Your task to perform on an android device: turn off location history Image 0: 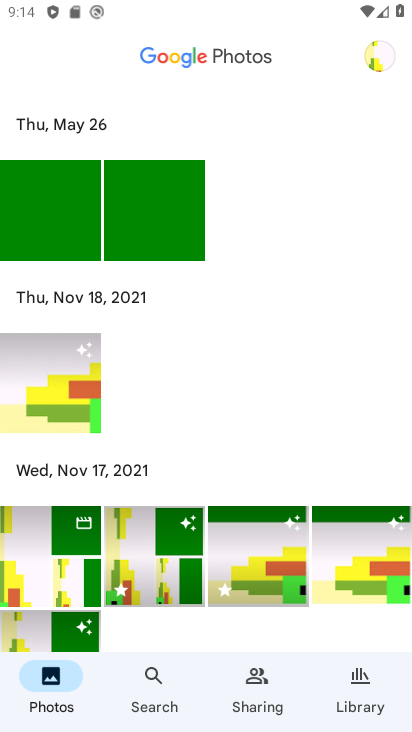
Step 0: press home button
Your task to perform on an android device: turn off location history Image 1: 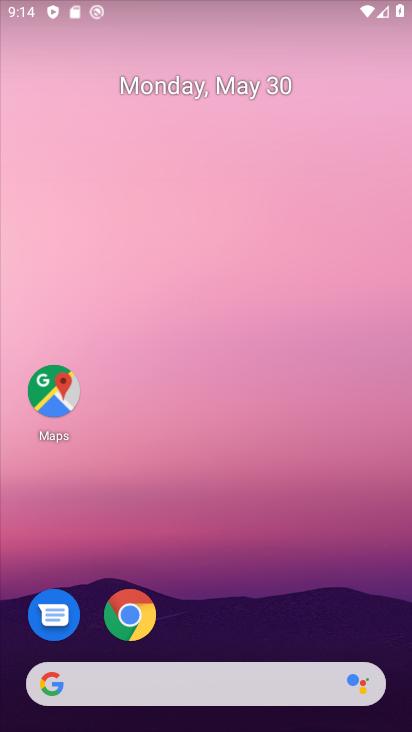
Step 1: drag from (191, 731) to (258, 257)
Your task to perform on an android device: turn off location history Image 2: 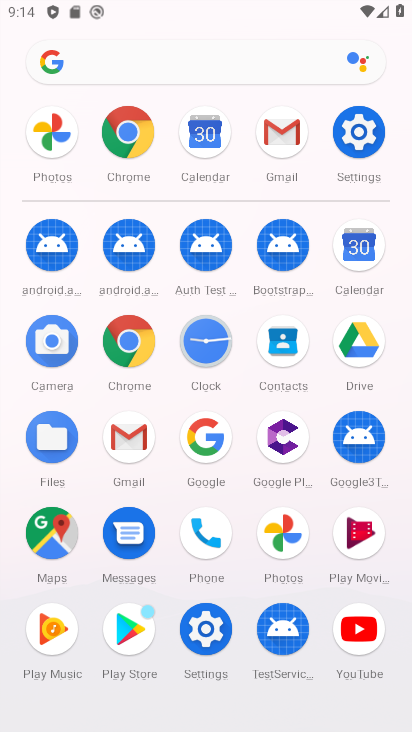
Step 2: click (217, 651)
Your task to perform on an android device: turn off location history Image 3: 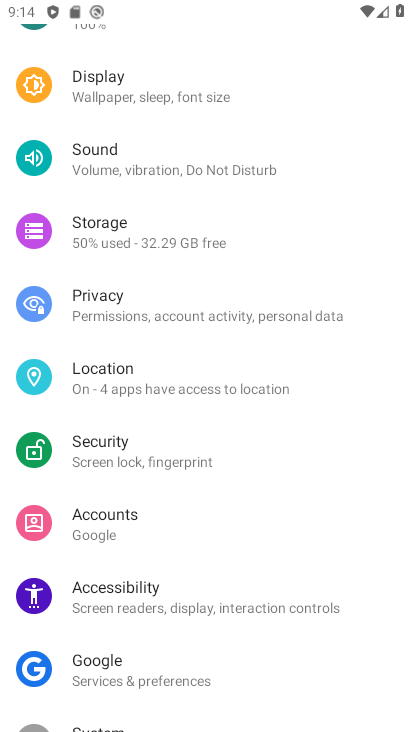
Step 3: click (219, 382)
Your task to perform on an android device: turn off location history Image 4: 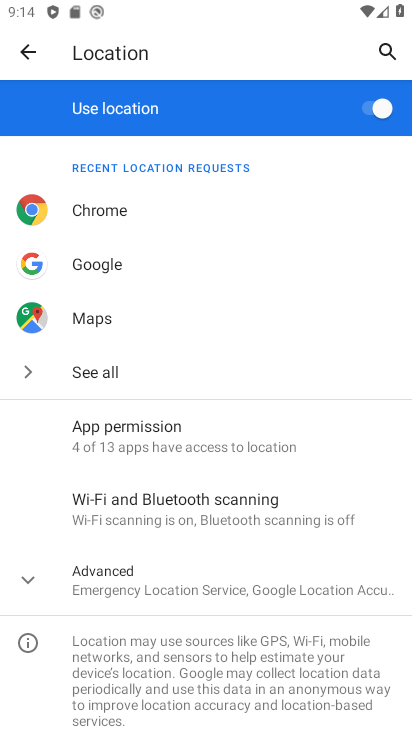
Step 4: click (209, 592)
Your task to perform on an android device: turn off location history Image 5: 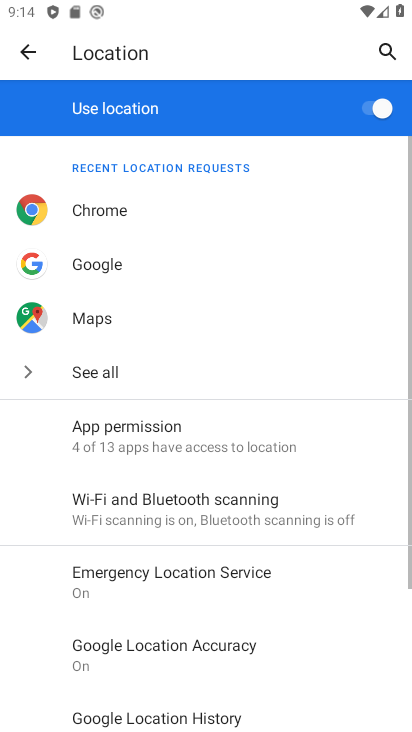
Step 5: drag from (167, 667) to (224, 426)
Your task to perform on an android device: turn off location history Image 6: 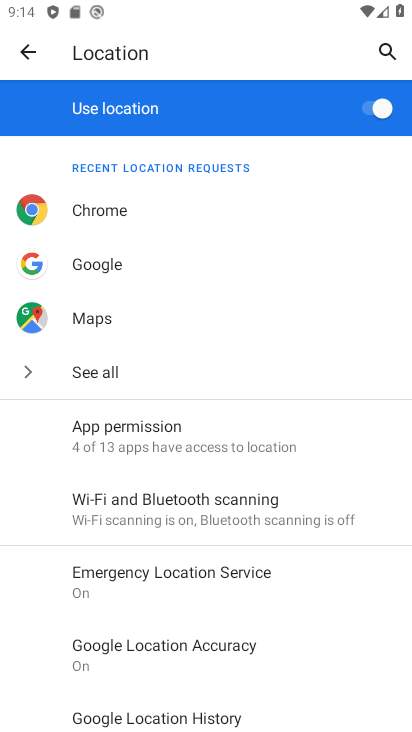
Step 6: click (140, 713)
Your task to perform on an android device: turn off location history Image 7: 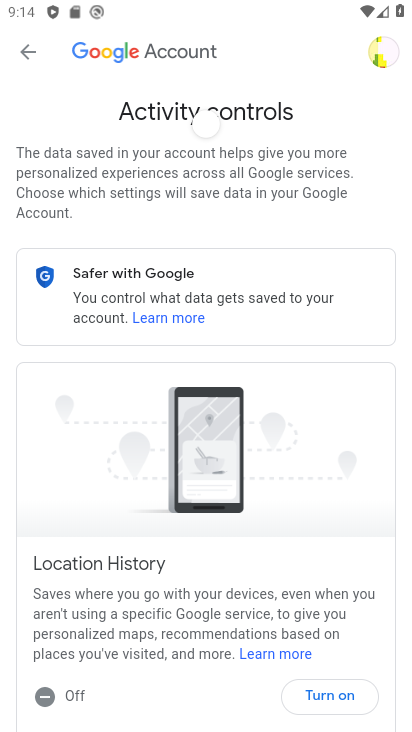
Step 7: task complete